Your task to perform on an android device: Go to wifi settings Image 0: 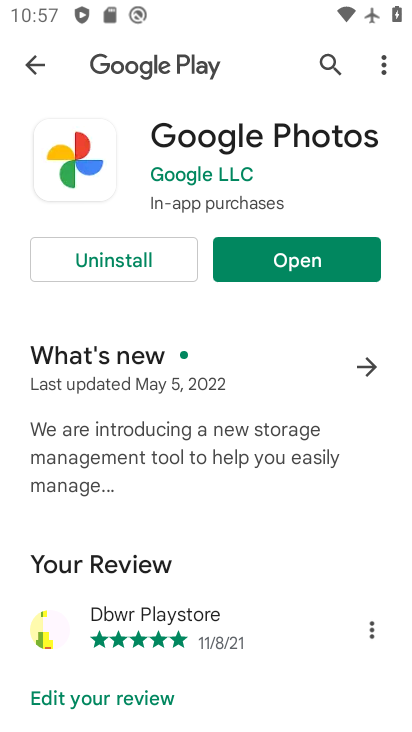
Step 0: press back button
Your task to perform on an android device: Go to wifi settings Image 1: 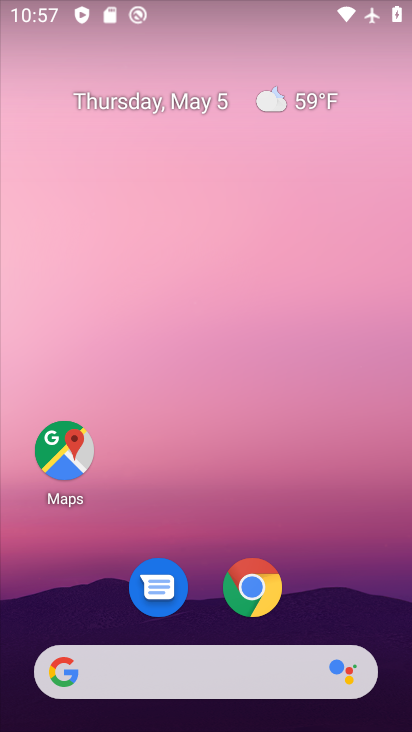
Step 1: drag from (308, 527) to (214, 26)
Your task to perform on an android device: Go to wifi settings Image 2: 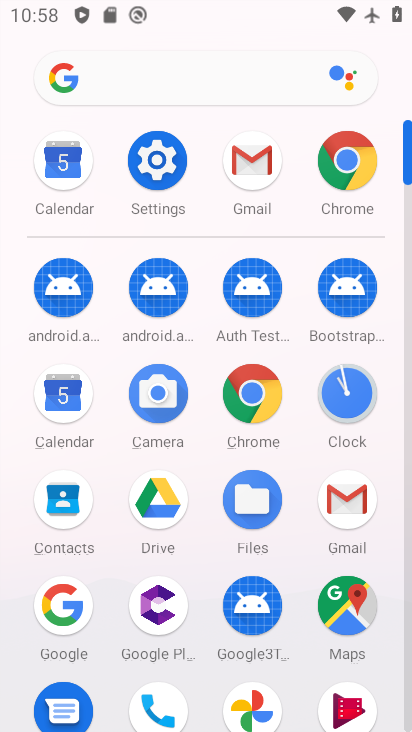
Step 2: click (156, 155)
Your task to perform on an android device: Go to wifi settings Image 3: 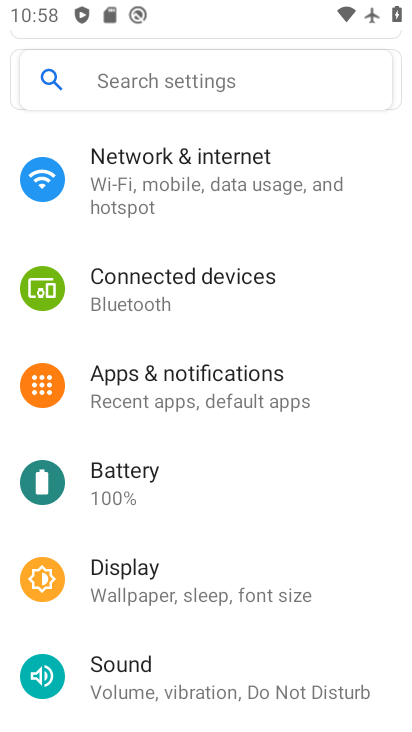
Step 3: click (219, 142)
Your task to perform on an android device: Go to wifi settings Image 4: 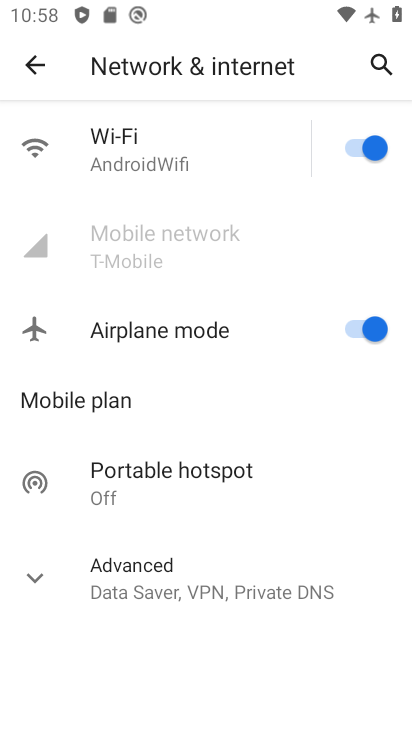
Step 4: click (144, 147)
Your task to perform on an android device: Go to wifi settings Image 5: 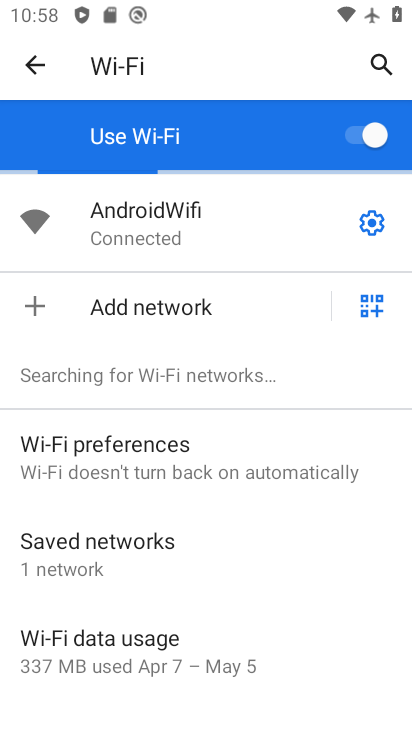
Step 5: task complete